Your task to perform on an android device: open wifi settings Image 0: 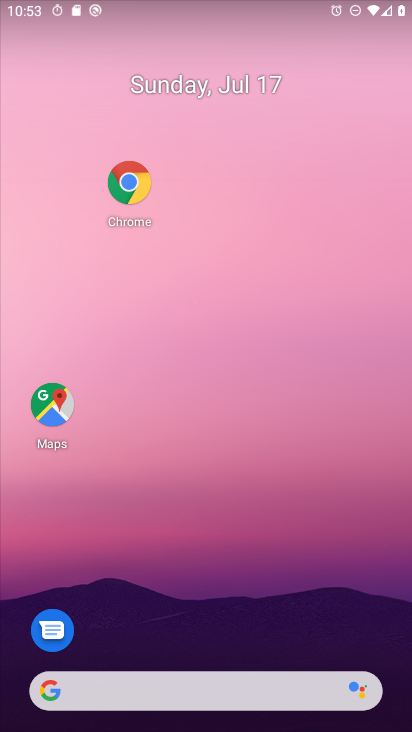
Step 0: drag from (236, 637) to (236, 275)
Your task to perform on an android device: open wifi settings Image 1: 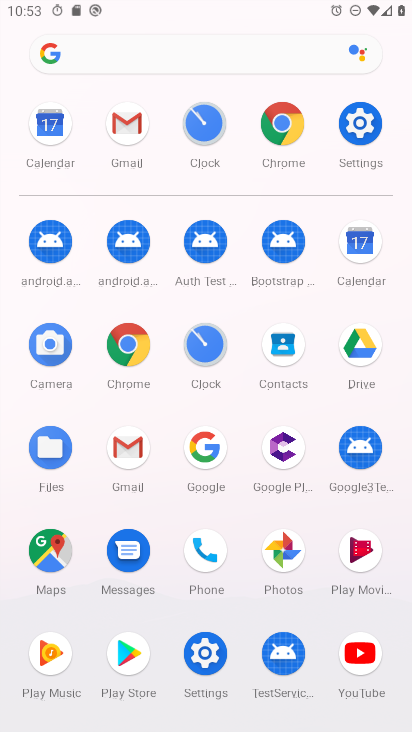
Step 1: click (346, 115)
Your task to perform on an android device: open wifi settings Image 2: 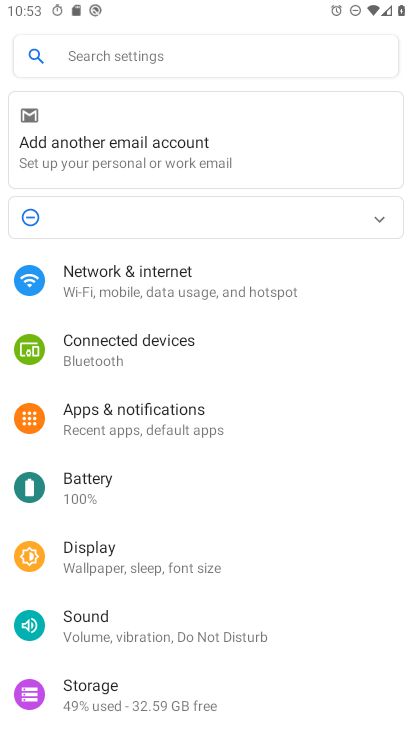
Step 2: click (140, 278)
Your task to perform on an android device: open wifi settings Image 3: 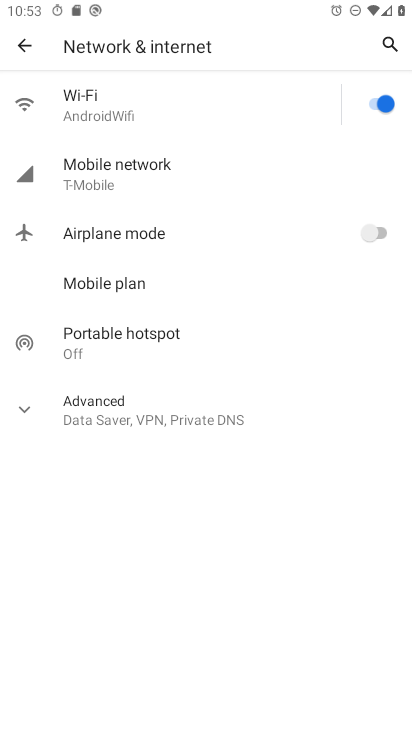
Step 3: click (112, 101)
Your task to perform on an android device: open wifi settings Image 4: 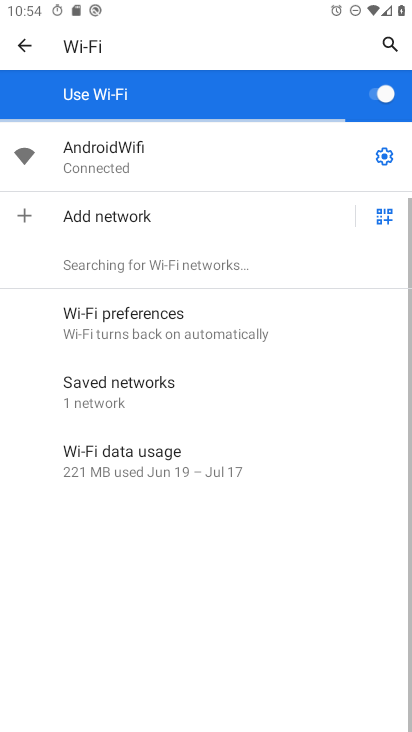
Step 4: task complete